Your task to perform on an android device: install app "DoorDash - Dasher" Image 0: 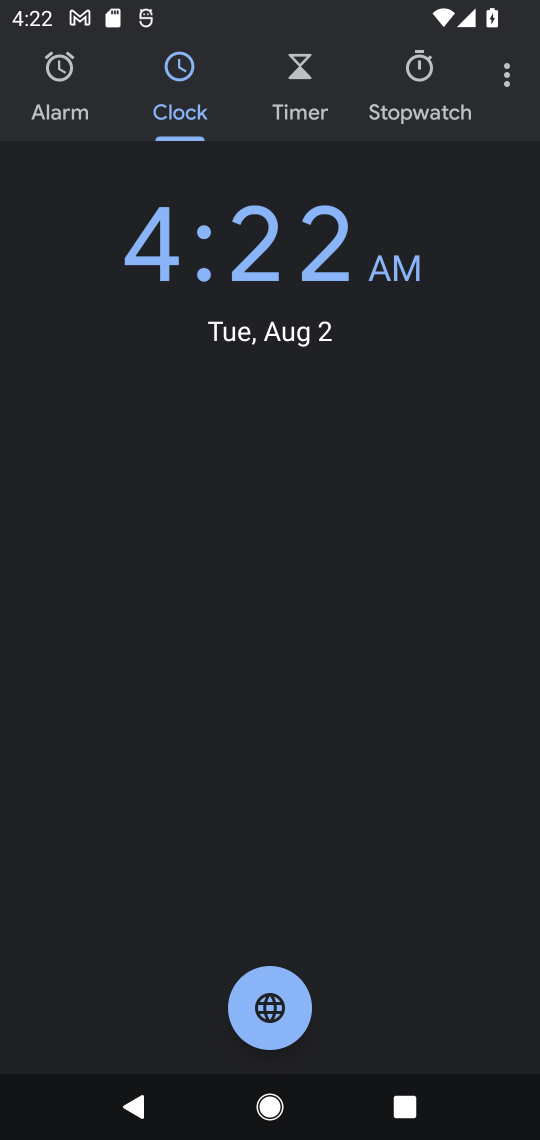
Step 0: press home button
Your task to perform on an android device: install app "DoorDash - Dasher" Image 1: 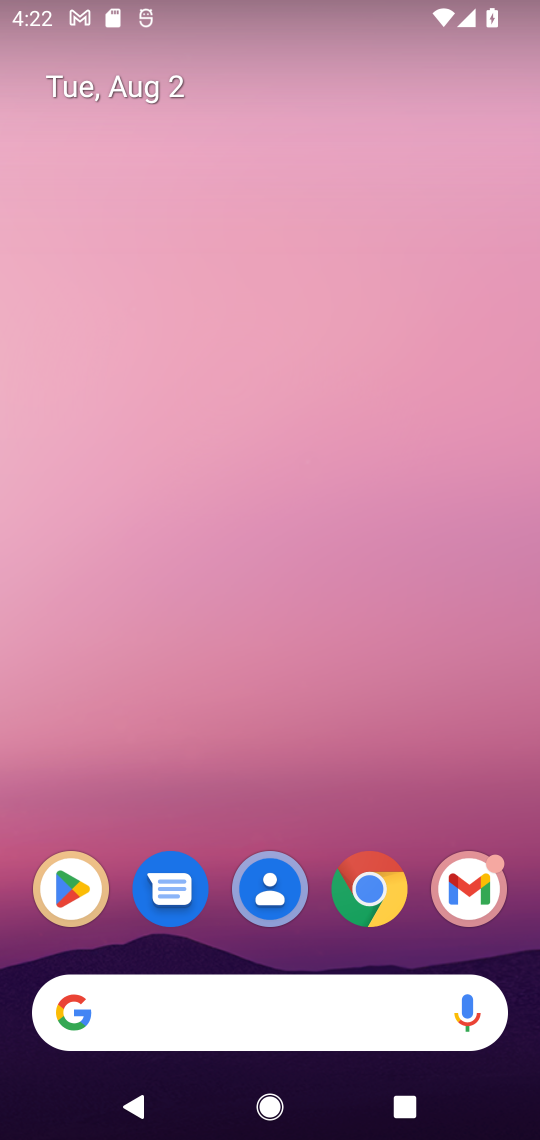
Step 1: drag from (398, 779) to (379, 130)
Your task to perform on an android device: install app "DoorDash - Dasher" Image 2: 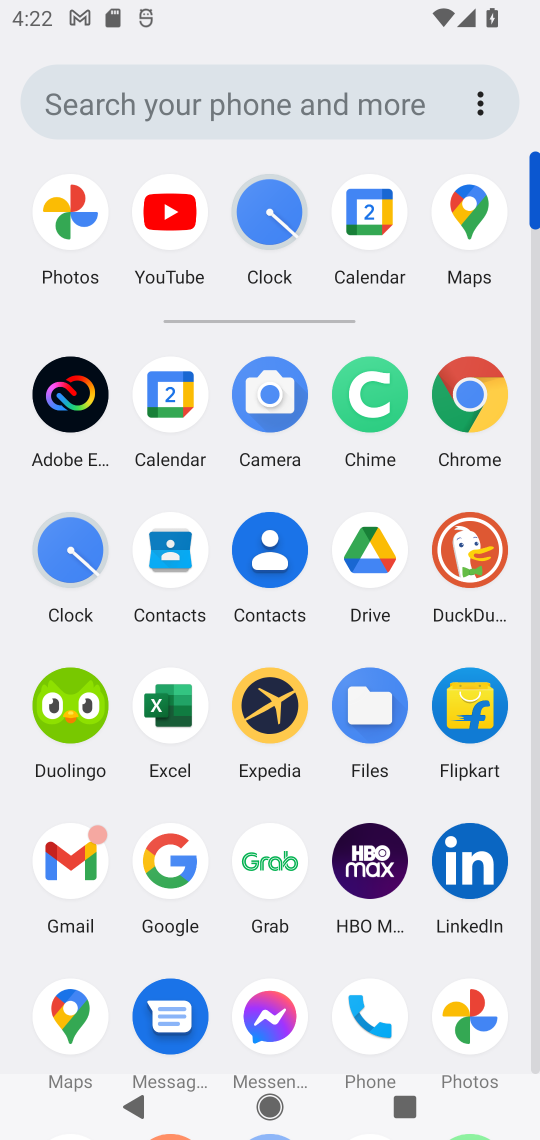
Step 2: drag from (518, 797) to (491, 408)
Your task to perform on an android device: install app "DoorDash - Dasher" Image 3: 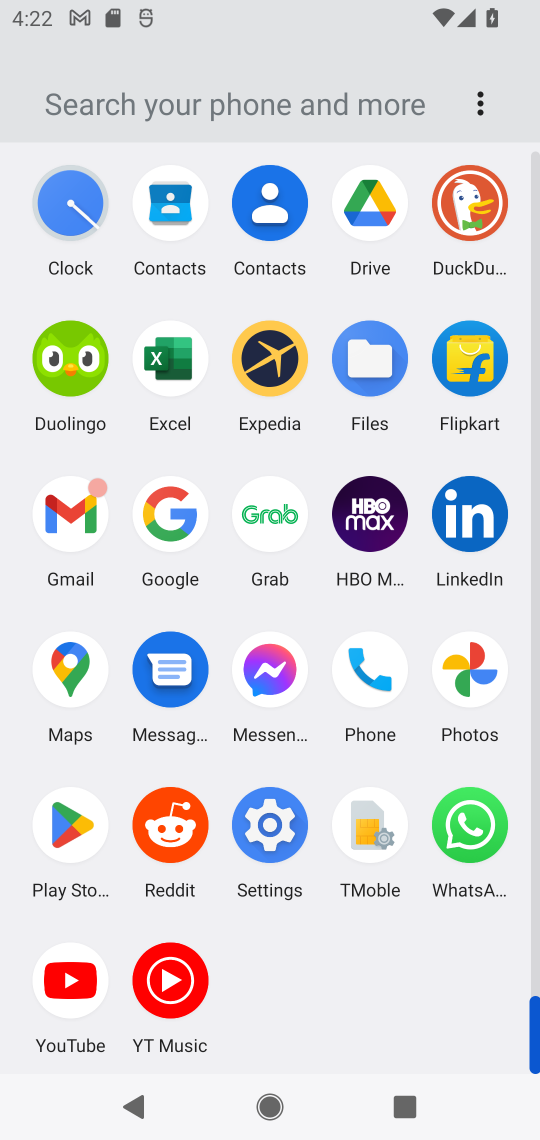
Step 3: click (76, 831)
Your task to perform on an android device: install app "DoorDash - Dasher" Image 4: 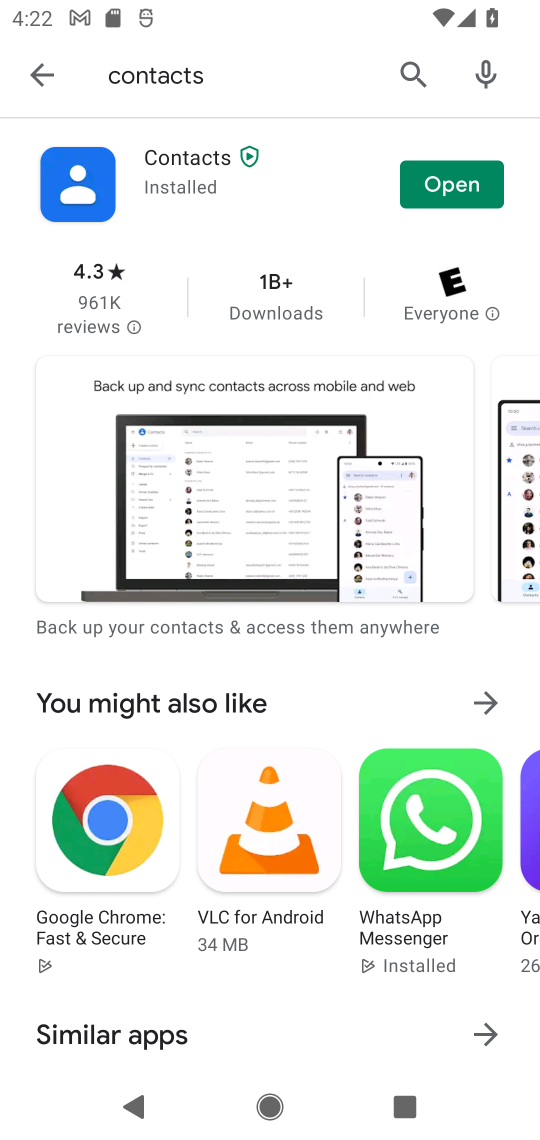
Step 4: click (419, 71)
Your task to perform on an android device: install app "DoorDash - Dasher" Image 5: 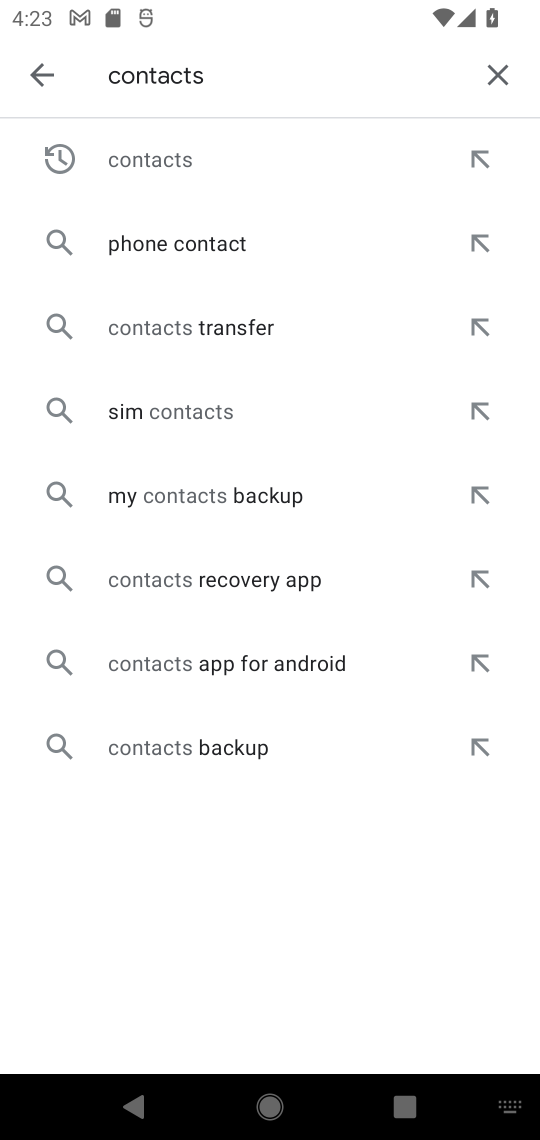
Step 5: click (499, 75)
Your task to perform on an android device: install app "DoorDash - Dasher" Image 6: 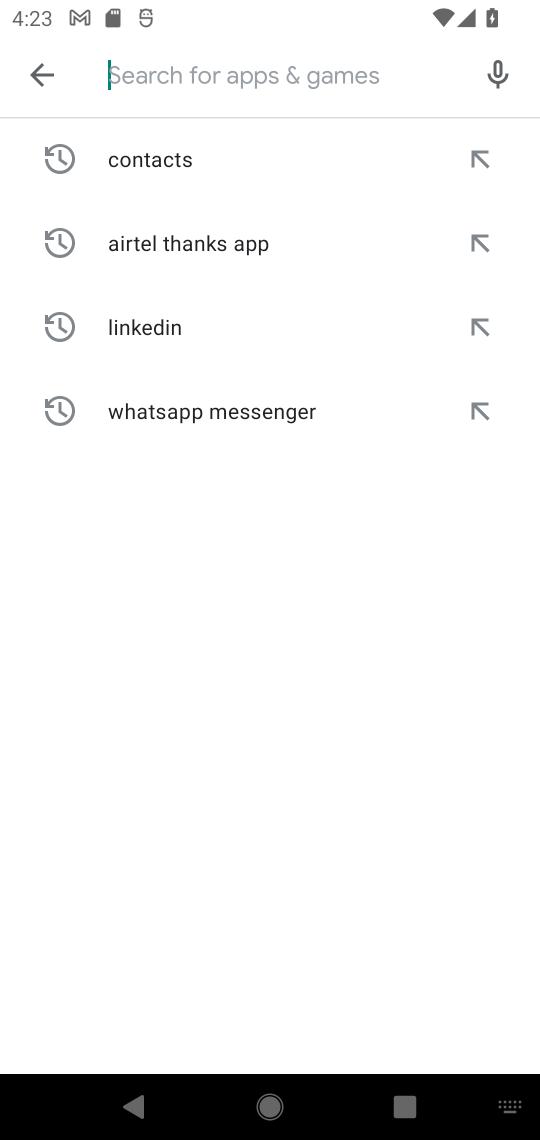
Step 6: type "door dash dasher"
Your task to perform on an android device: install app "DoorDash - Dasher" Image 7: 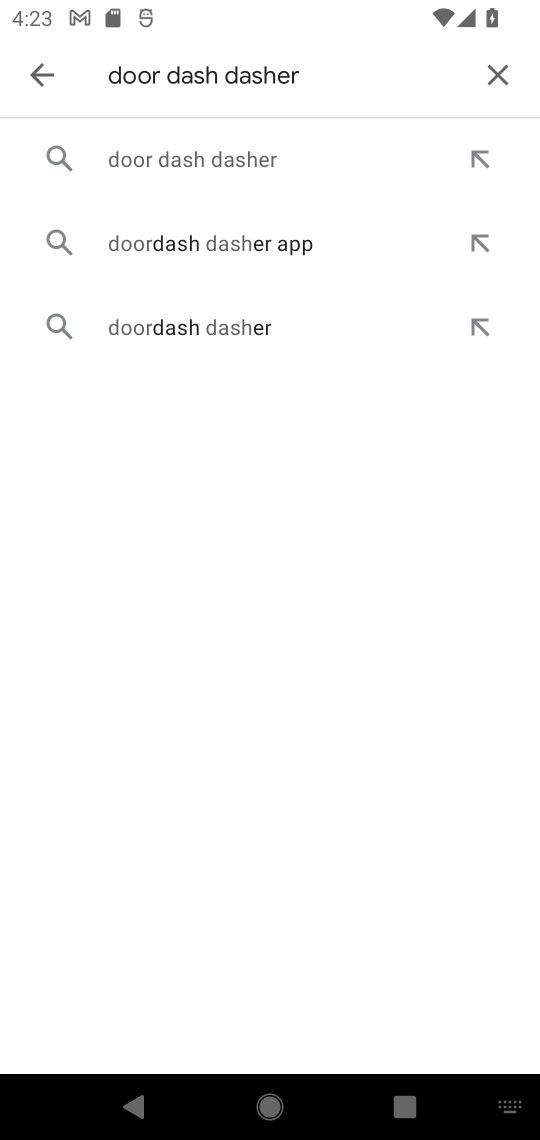
Step 7: click (268, 156)
Your task to perform on an android device: install app "DoorDash - Dasher" Image 8: 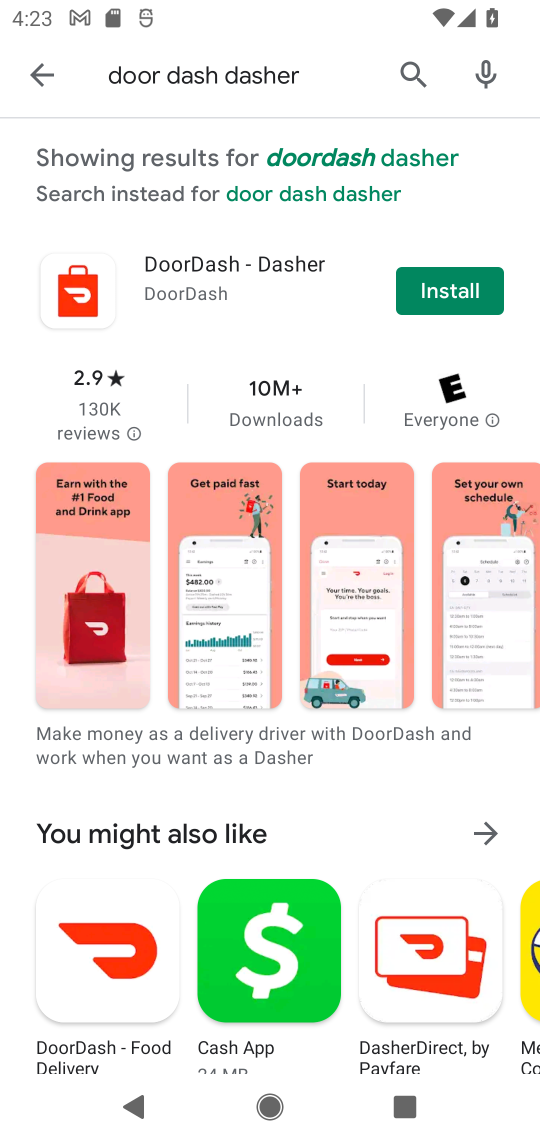
Step 8: click (450, 282)
Your task to perform on an android device: install app "DoorDash - Dasher" Image 9: 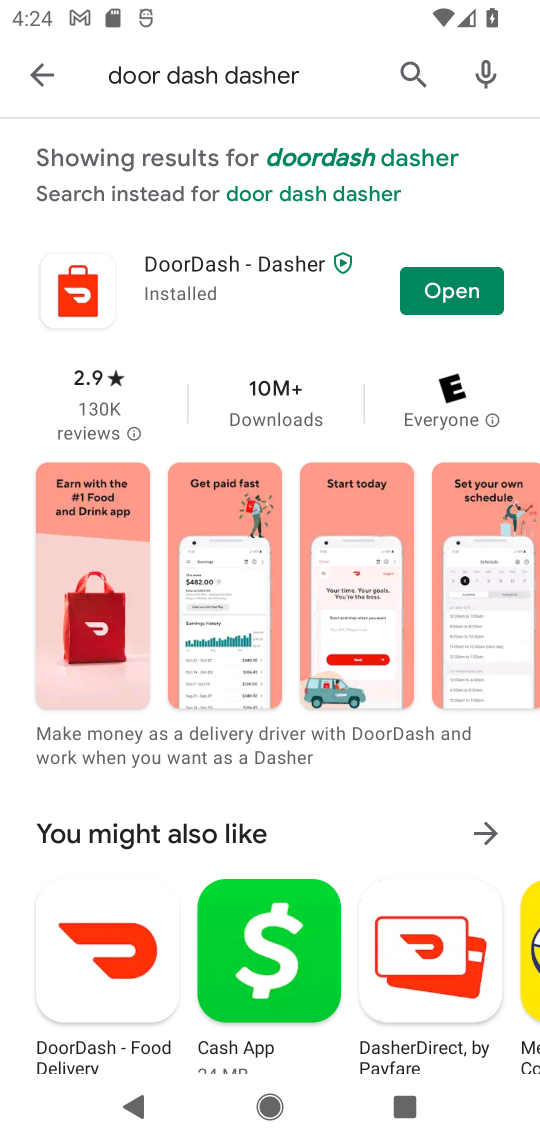
Step 9: task complete